Your task to perform on an android device: turn on data saver in the chrome app Image 0: 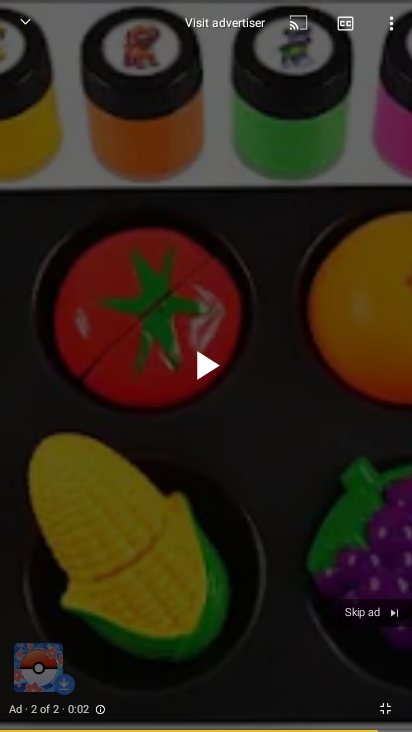
Step 0: press home button
Your task to perform on an android device: turn on data saver in the chrome app Image 1: 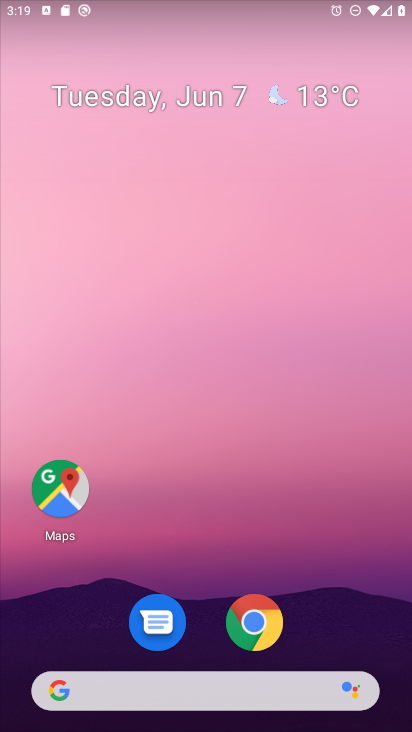
Step 1: click (263, 618)
Your task to perform on an android device: turn on data saver in the chrome app Image 2: 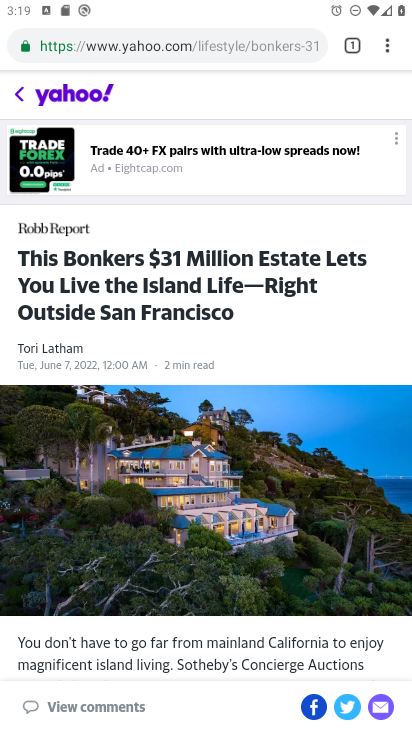
Step 2: click (388, 55)
Your task to perform on an android device: turn on data saver in the chrome app Image 3: 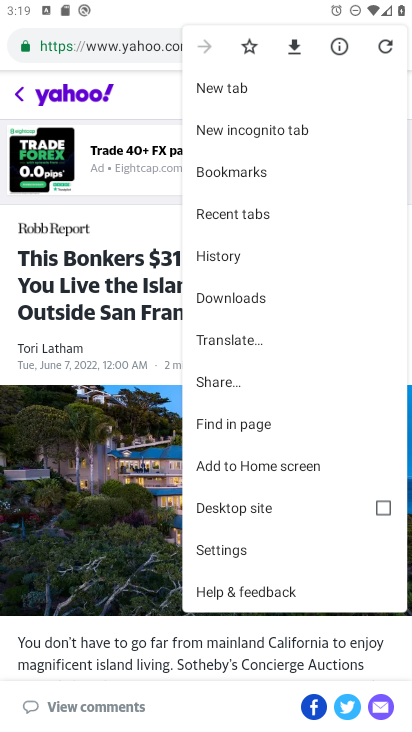
Step 3: click (226, 549)
Your task to perform on an android device: turn on data saver in the chrome app Image 4: 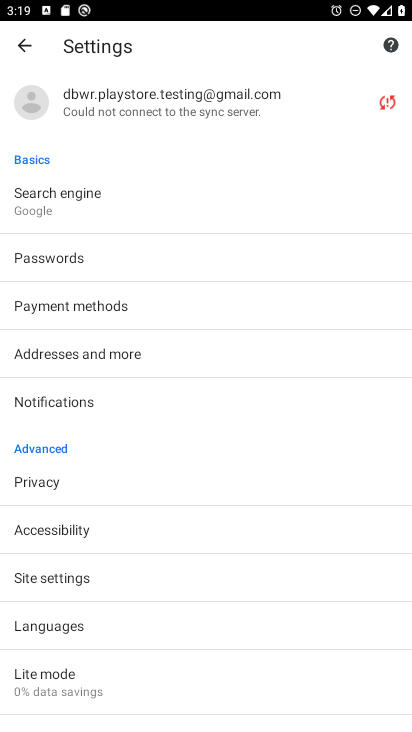
Step 4: click (57, 676)
Your task to perform on an android device: turn on data saver in the chrome app Image 5: 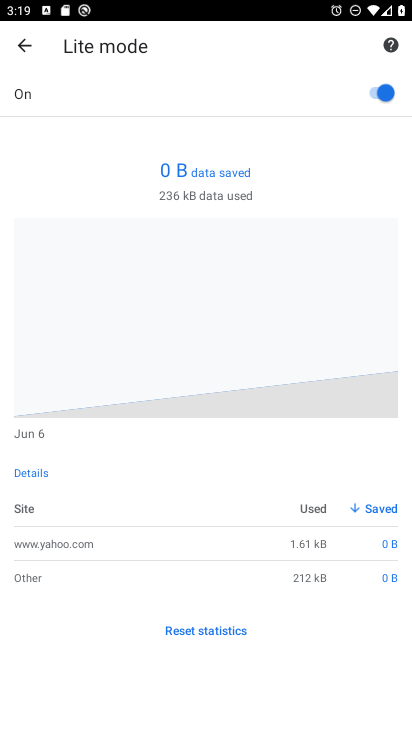
Step 5: task complete